Your task to perform on an android device: Go to settings Image 0: 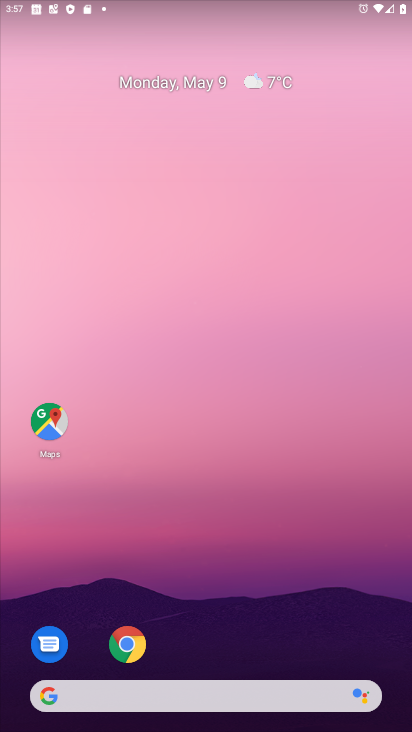
Step 0: drag from (281, 688) to (53, 110)
Your task to perform on an android device: Go to settings Image 1: 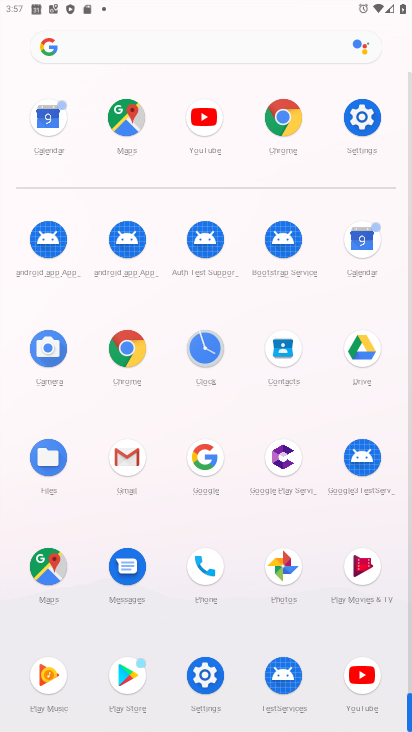
Step 1: click (347, 122)
Your task to perform on an android device: Go to settings Image 2: 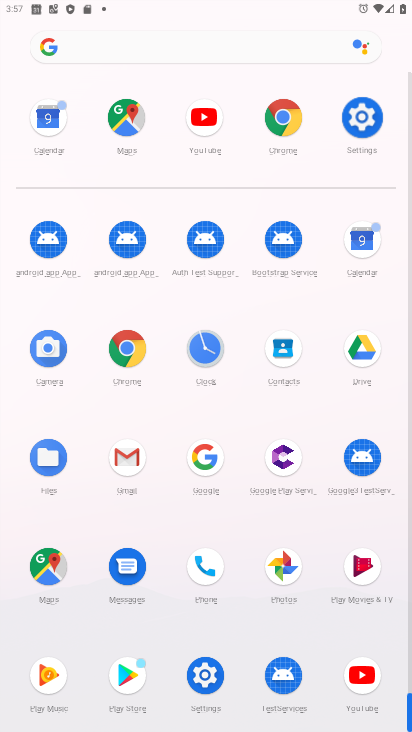
Step 2: click (348, 123)
Your task to perform on an android device: Go to settings Image 3: 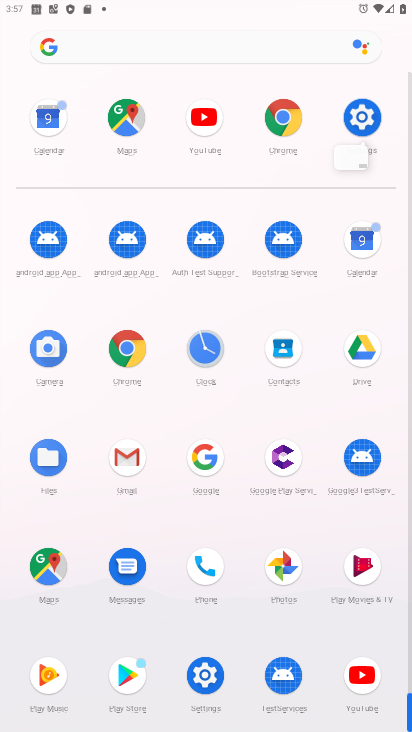
Step 3: click (349, 122)
Your task to perform on an android device: Go to settings Image 4: 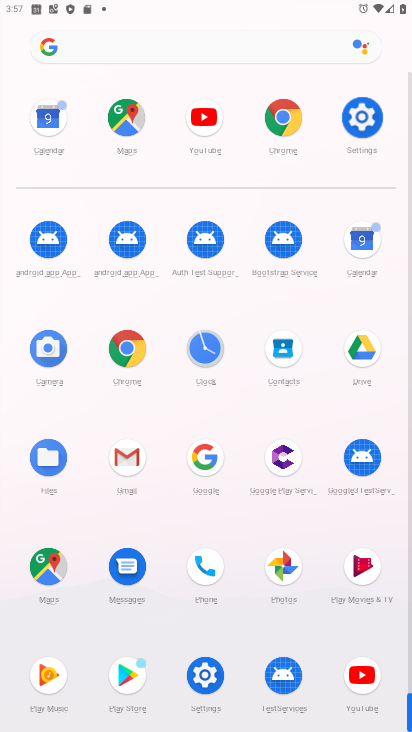
Step 4: click (343, 117)
Your task to perform on an android device: Go to settings Image 5: 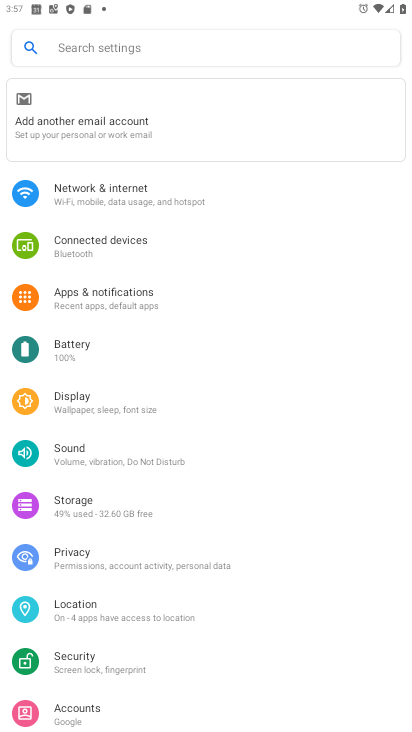
Step 5: task complete